Your task to perform on an android device: Do I have any events tomorrow? Image 0: 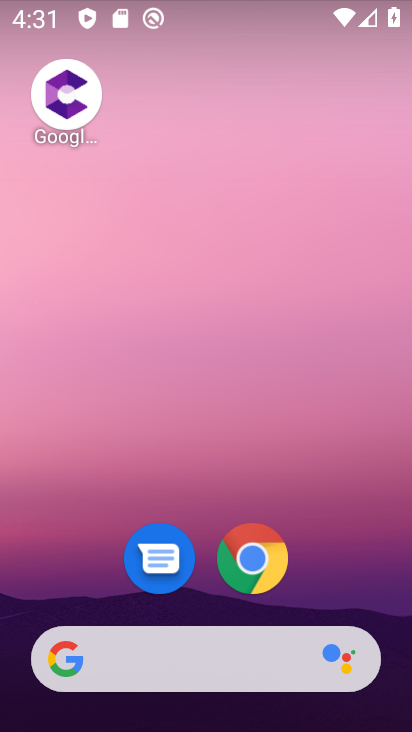
Step 0: drag from (363, 560) to (275, 150)
Your task to perform on an android device: Do I have any events tomorrow? Image 1: 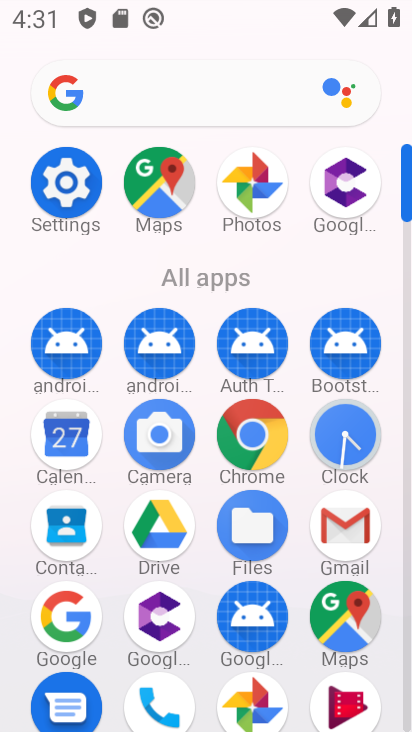
Step 1: click (74, 437)
Your task to perform on an android device: Do I have any events tomorrow? Image 2: 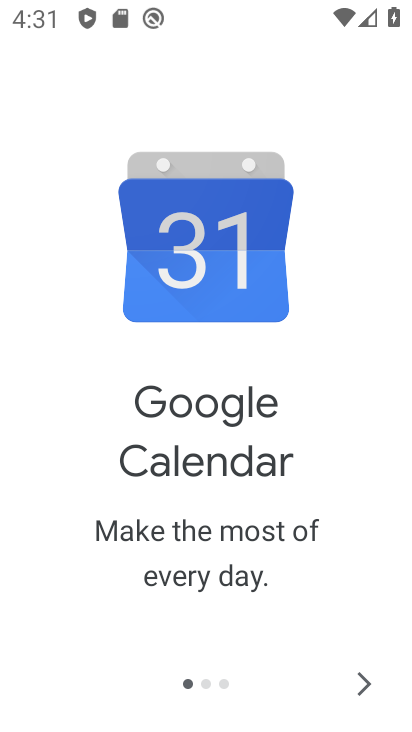
Step 2: click (369, 694)
Your task to perform on an android device: Do I have any events tomorrow? Image 3: 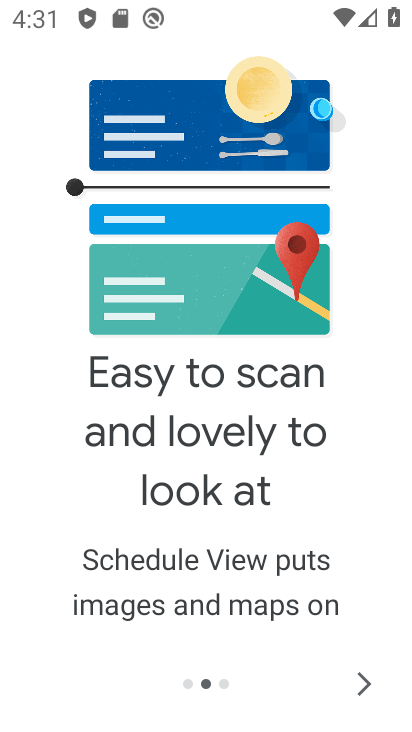
Step 3: click (369, 694)
Your task to perform on an android device: Do I have any events tomorrow? Image 4: 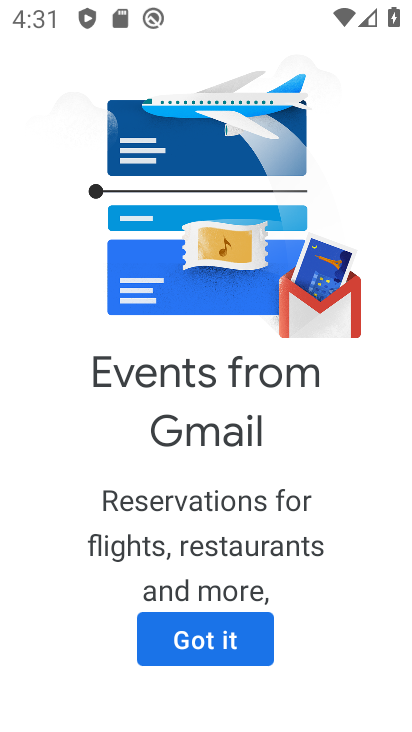
Step 4: click (247, 654)
Your task to perform on an android device: Do I have any events tomorrow? Image 5: 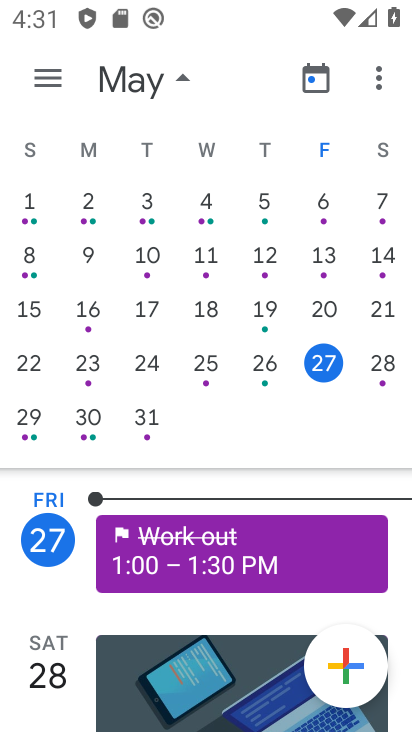
Step 5: click (53, 83)
Your task to perform on an android device: Do I have any events tomorrow? Image 6: 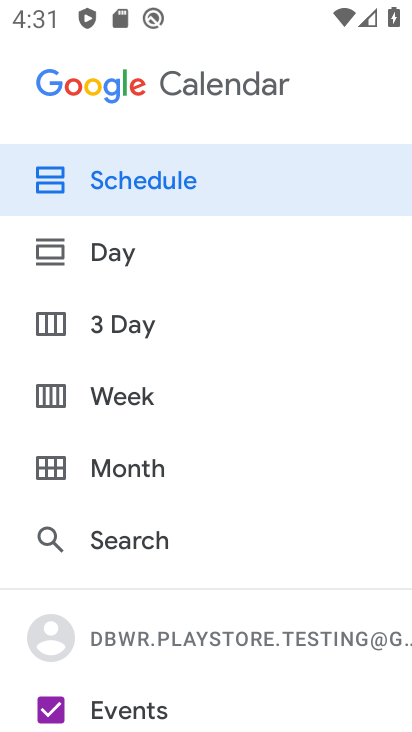
Step 6: drag from (259, 690) to (211, 297)
Your task to perform on an android device: Do I have any events tomorrow? Image 7: 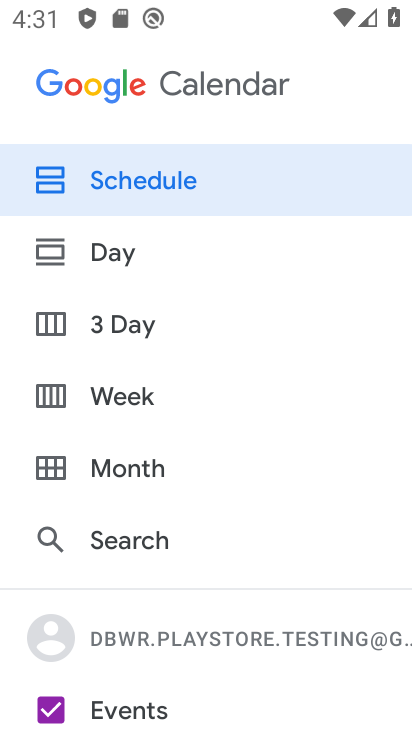
Step 7: drag from (193, 656) to (155, 216)
Your task to perform on an android device: Do I have any events tomorrow? Image 8: 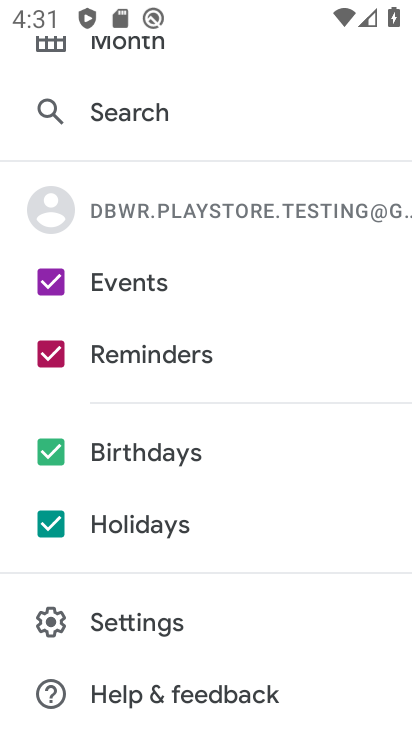
Step 8: click (50, 526)
Your task to perform on an android device: Do I have any events tomorrow? Image 9: 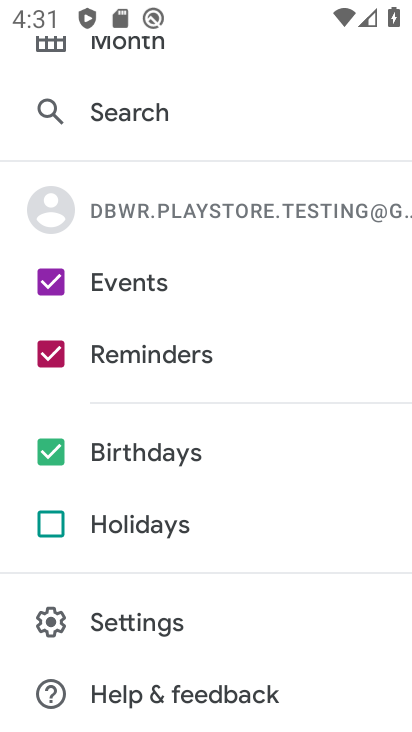
Step 9: click (49, 460)
Your task to perform on an android device: Do I have any events tomorrow? Image 10: 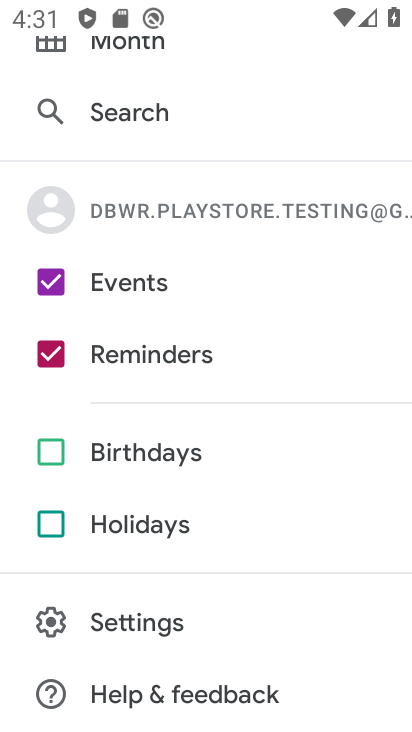
Step 10: click (55, 347)
Your task to perform on an android device: Do I have any events tomorrow? Image 11: 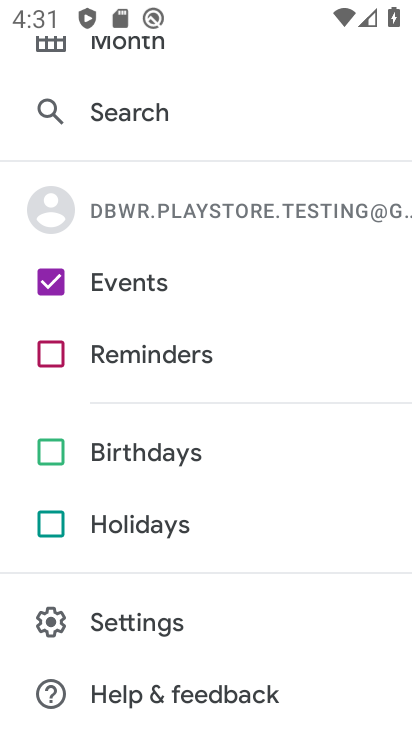
Step 11: drag from (163, 102) to (128, 634)
Your task to perform on an android device: Do I have any events tomorrow? Image 12: 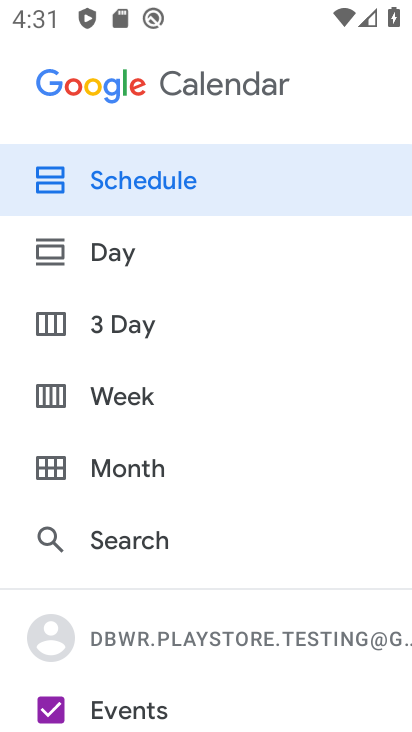
Step 12: click (146, 243)
Your task to perform on an android device: Do I have any events tomorrow? Image 13: 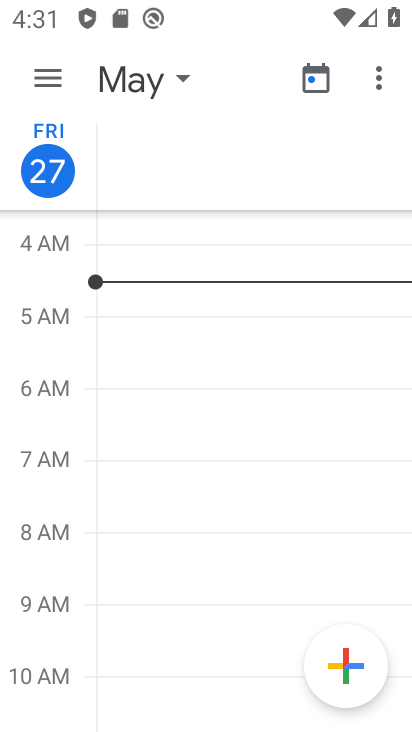
Step 13: click (164, 84)
Your task to perform on an android device: Do I have any events tomorrow? Image 14: 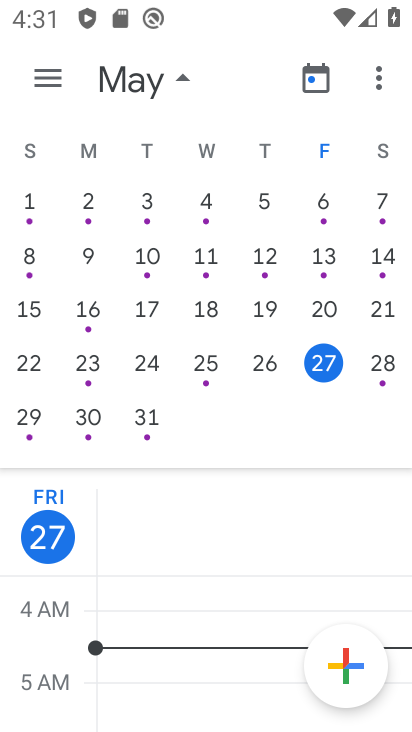
Step 14: click (393, 384)
Your task to perform on an android device: Do I have any events tomorrow? Image 15: 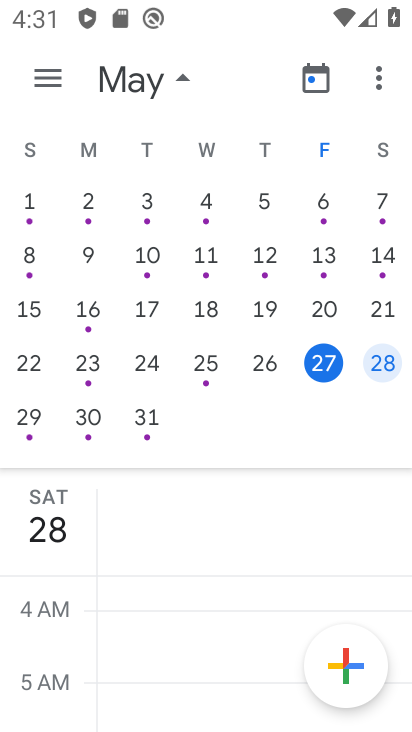
Step 15: click (157, 78)
Your task to perform on an android device: Do I have any events tomorrow? Image 16: 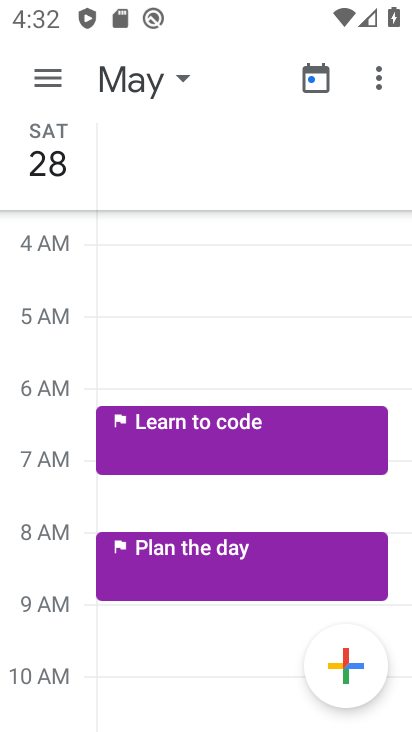
Step 16: task complete